Your task to perform on an android device: Turn on the flashlight Image 0: 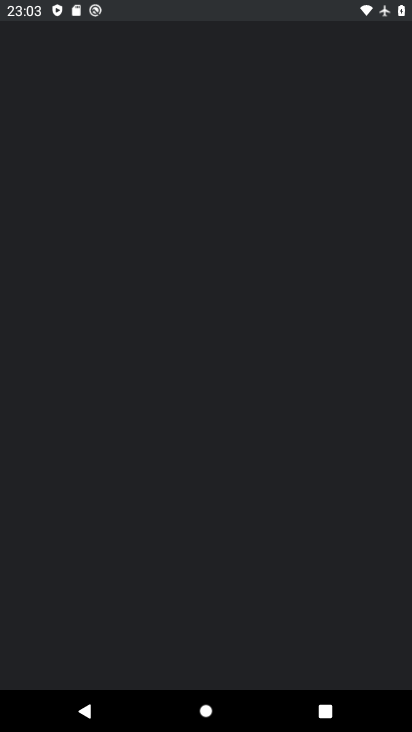
Step 0: drag from (368, 520) to (334, 24)
Your task to perform on an android device: Turn on the flashlight Image 1: 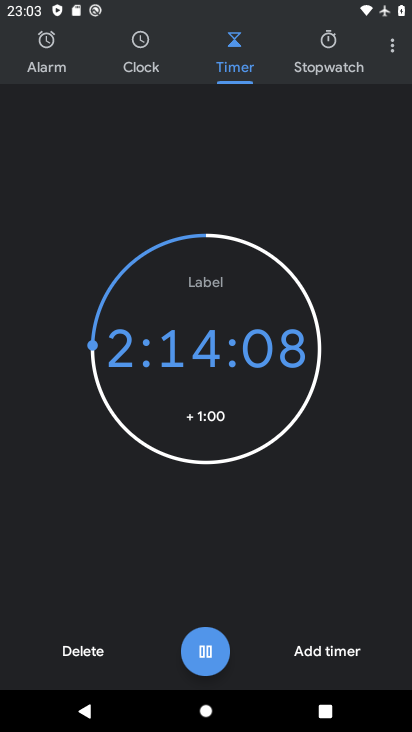
Step 1: press back button
Your task to perform on an android device: Turn on the flashlight Image 2: 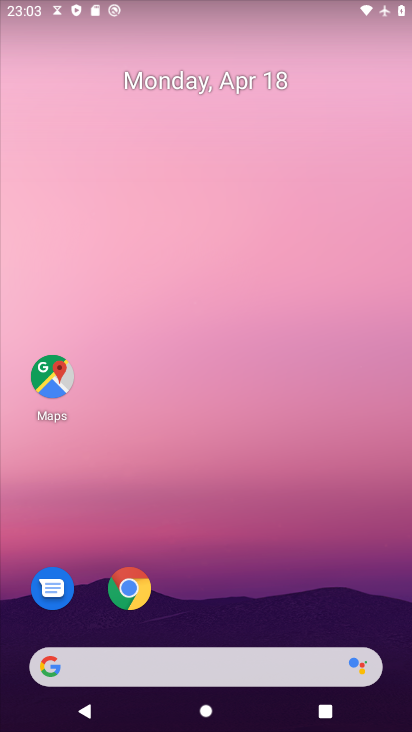
Step 2: drag from (352, 613) to (326, 95)
Your task to perform on an android device: Turn on the flashlight Image 3: 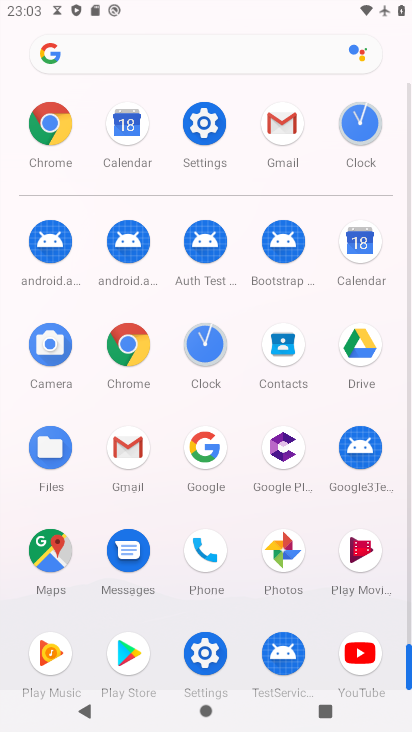
Step 3: click (202, 118)
Your task to perform on an android device: Turn on the flashlight Image 4: 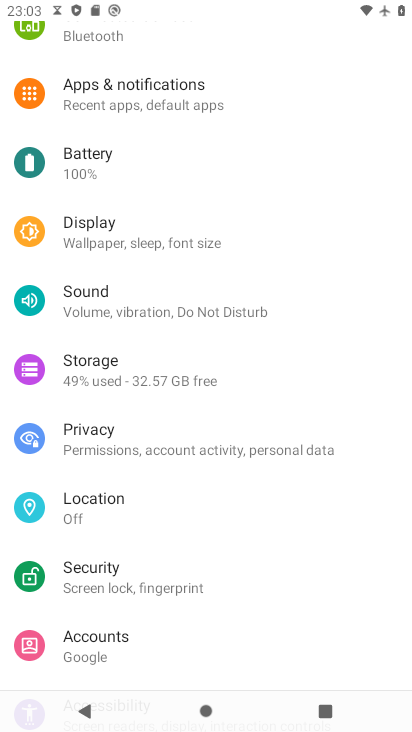
Step 4: drag from (243, 146) to (245, 506)
Your task to perform on an android device: Turn on the flashlight Image 5: 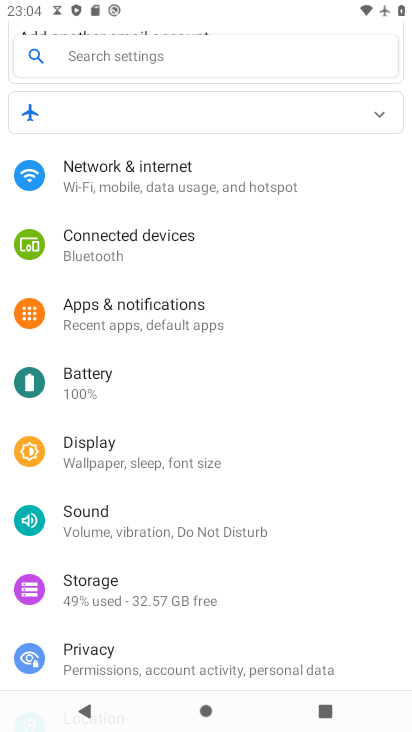
Step 5: click (218, 178)
Your task to perform on an android device: Turn on the flashlight Image 6: 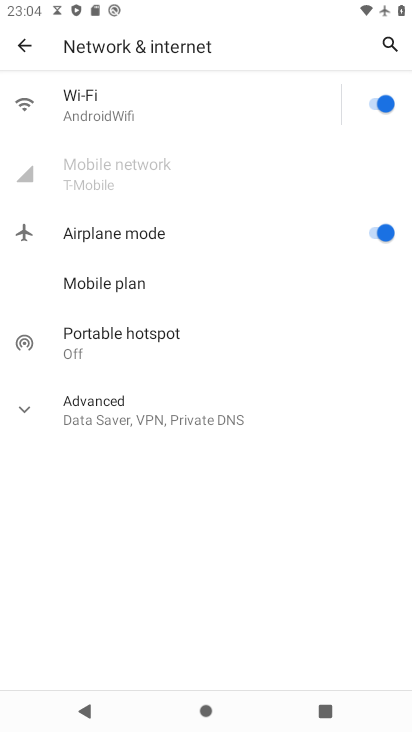
Step 6: click (22, 45)
Your task to perform on an android device: Turn on the flashlight Image 7: 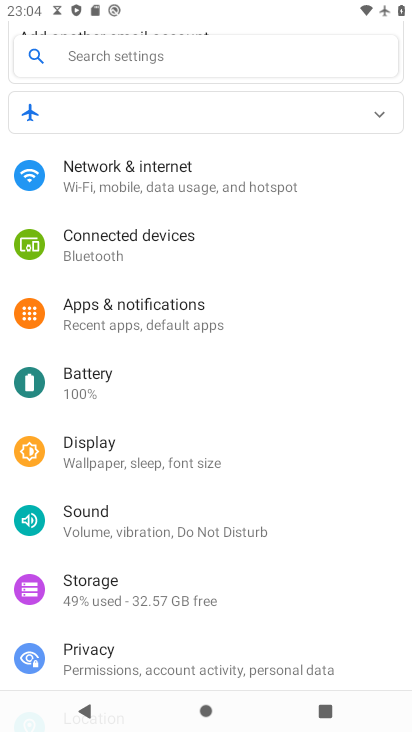
Step 7: click (181, 478)
Your task to perform on an android device: Turn on the flashlight Image 8: 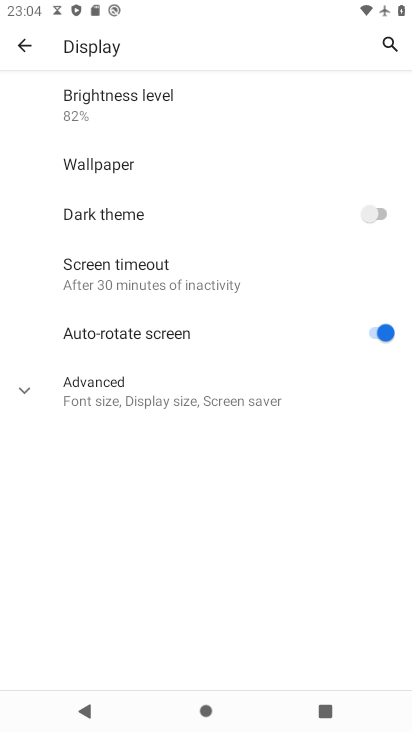
Step 8: click (32, 46)
Your task to perform on an android device: Turn on the flashlight Image 9: 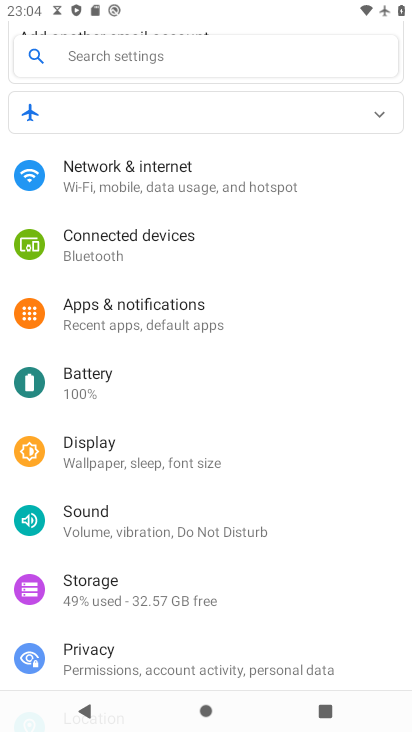
Step 9: drag from (314, 246) to (278, 529)
Your task to perform on an android device: Turn on the flashlight Image 10: 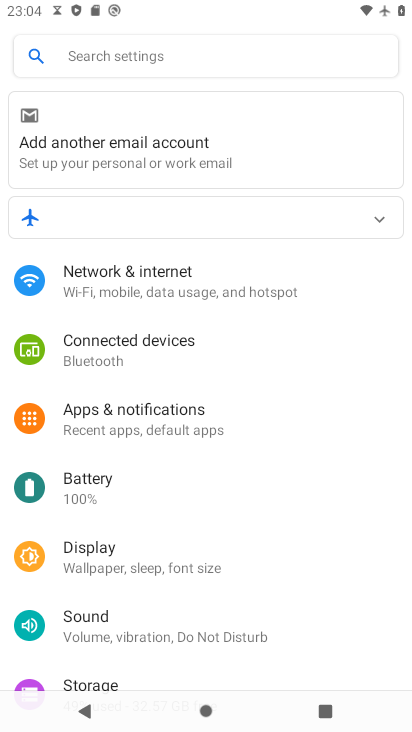
Step 10: drag from (287, 445) to (323, 139)
Your task to perform on an android device: Turn on the flashlight Image 11: 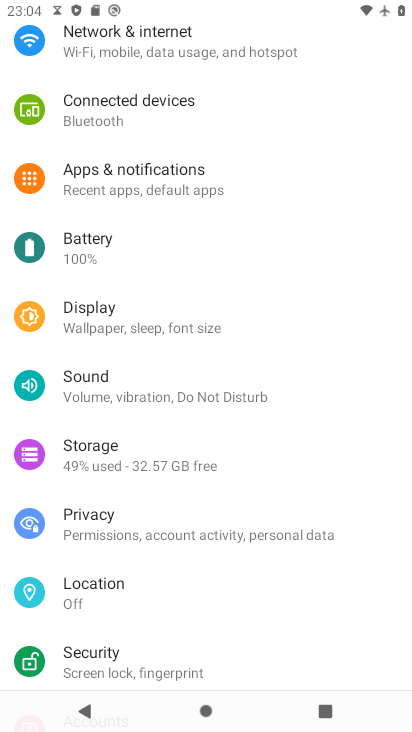
Step 11: drag from (323, 193) to (312, 269)
Your task to perform on an android device: Turn on the flashlight Image 12: 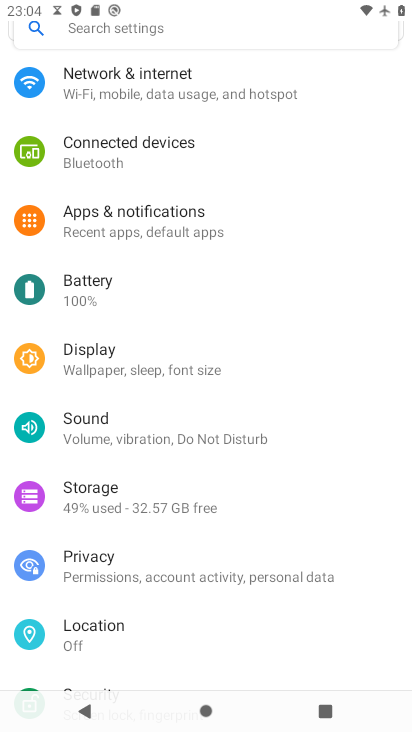
Step 12: click (202, 369)
Your task to perform on an android device: Turn on the flashlight Image 13: 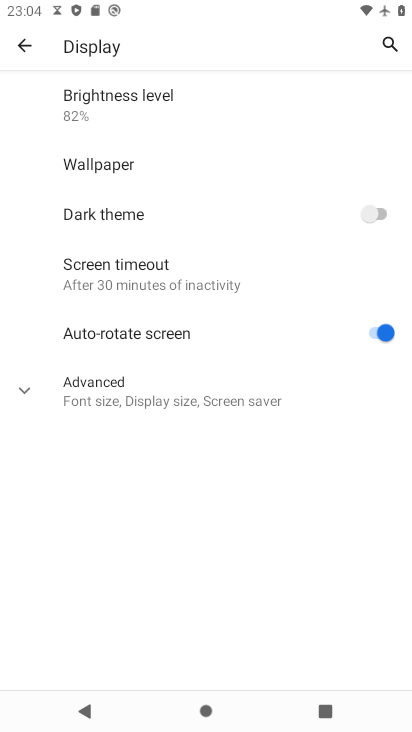
Step 13: click (28, 53)
Your task to perform on an android device: Turn on the flashlight Image 14: 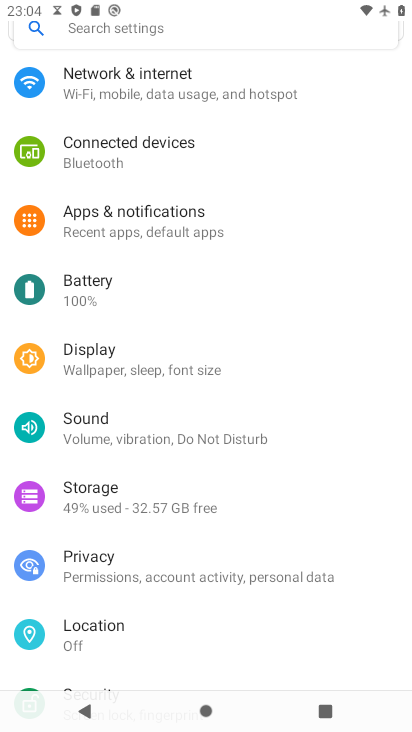
Step 14: task complete